Your task to perform on an android device: Set the phone to "Do not disturb". Image 0: 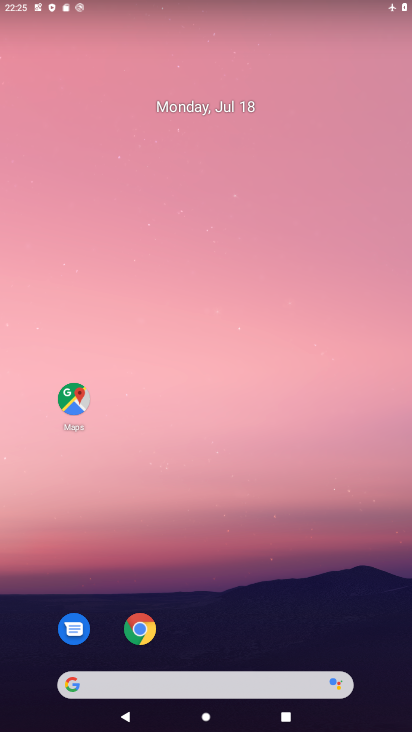
Step 0: drag from (307, 536) to (274, 22)
Your task to perform on an android device: Set the phone to "Do not disturb". Image 1: 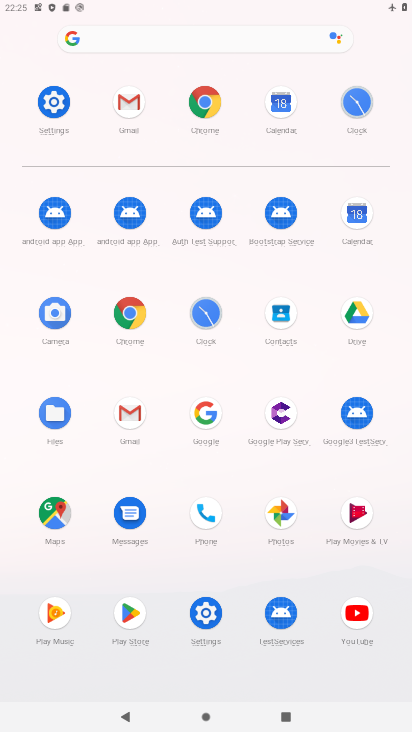
Step 1: press home button
Your task to perform on an android device: Set the phone to "Do not disturb". Image 2: 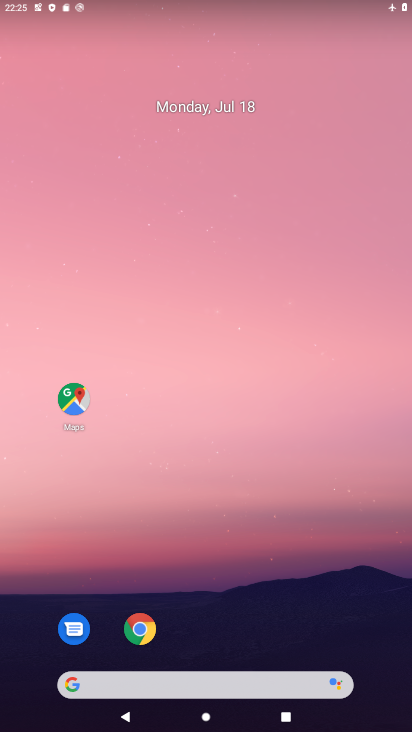
Step 2: drag from (235, 2) to (311, 468)
Your task to perform on an android device: Set the phone to "Do not disturb". Image 3: 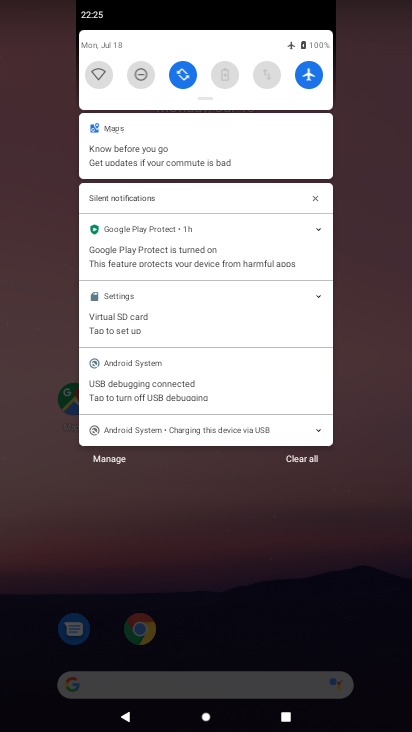
Step 3: click (140, 68)
Your task to perform on an android device: Set the phone to "Do not disturb". Image 4: 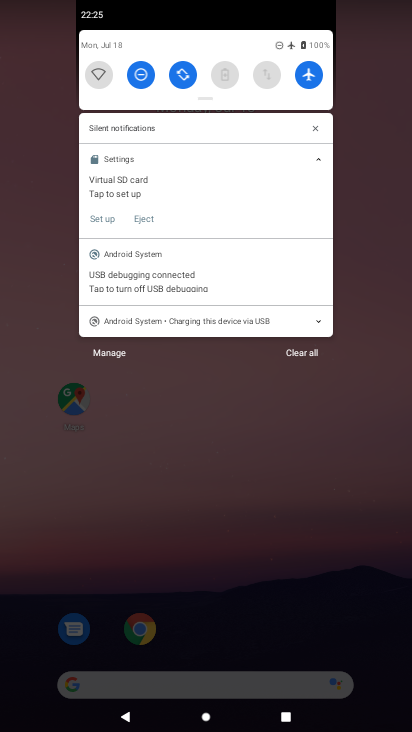
Step 4: task complete